Your task to perform on an android device: star an email in the gmail app Image 0: 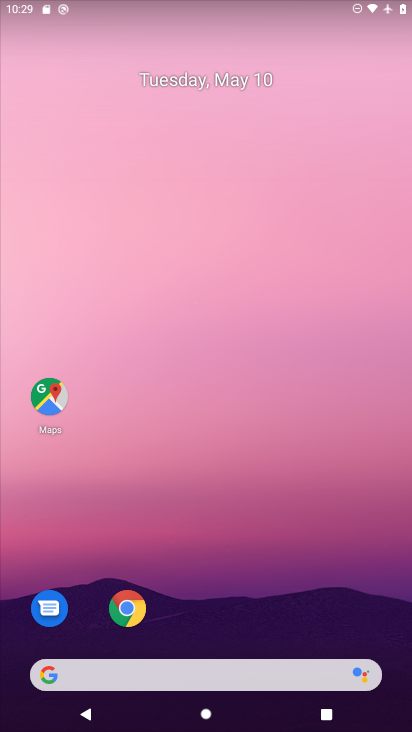
Step 0: drag from (232, 610) to (271, 239)
Your task to perform on an android device: star an email in the gmail app Image 1: 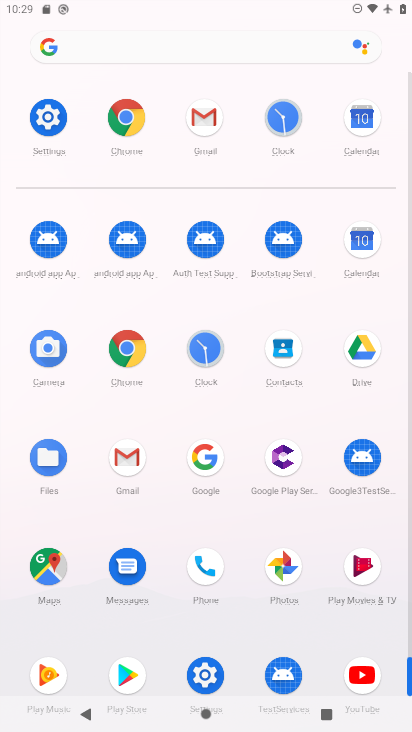
Step 1: click (202, 111)
Your task to perform on an android device: star an email in the gmail app Image 2: 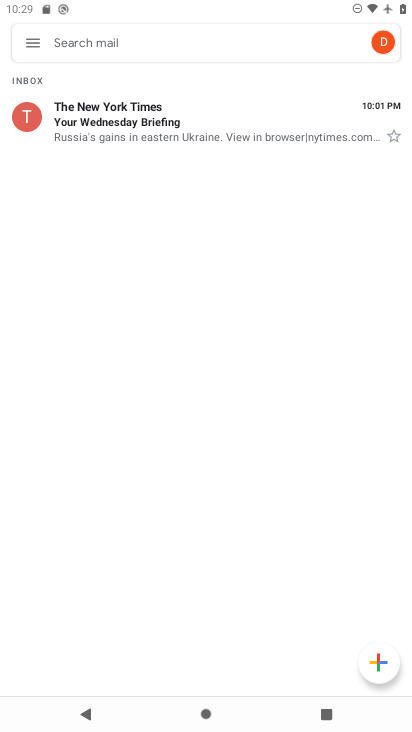
Step 2: click (31, 41)
Your task to perform on an android device: star an email in the gmail app Image 3: 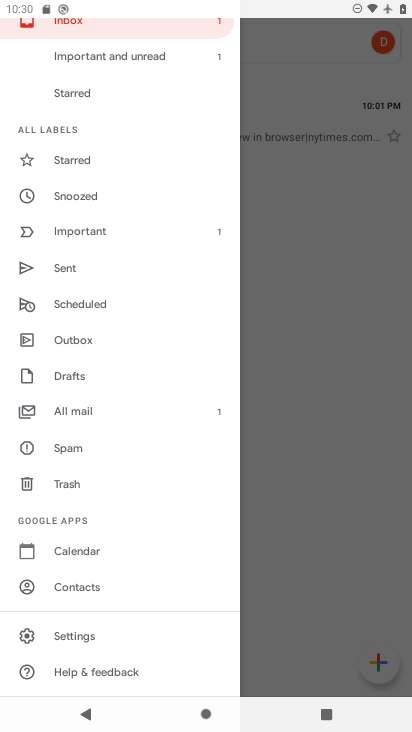
Step 3: click (84, 161)
Your task to perform on an android device: star an email in the gmail app Image 4: 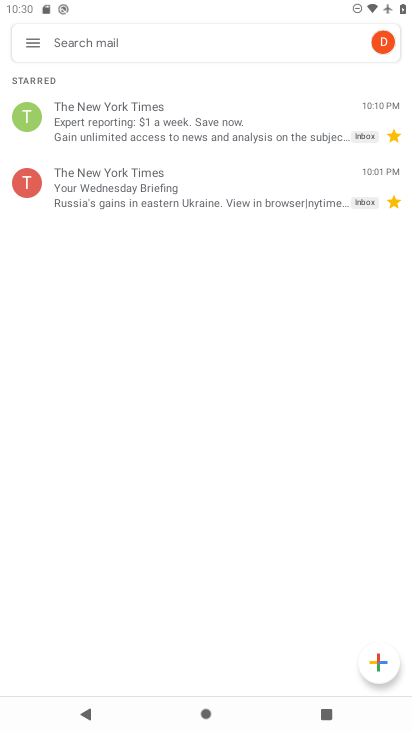
Step 4: task complete